Your task to perform on an android device: Open Youtube and go to the subscriptions tab Image 0: 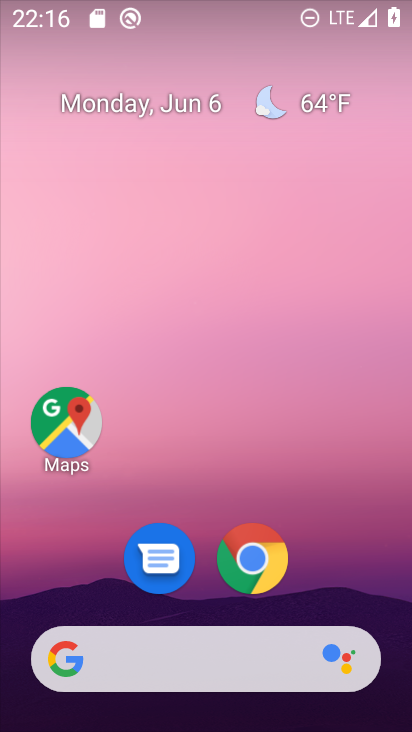
Step 0: drag from (202, 706) to (206, 119)
Your task to perform on an android device: Open Youtube and go to the subscriptions tab Image 1: 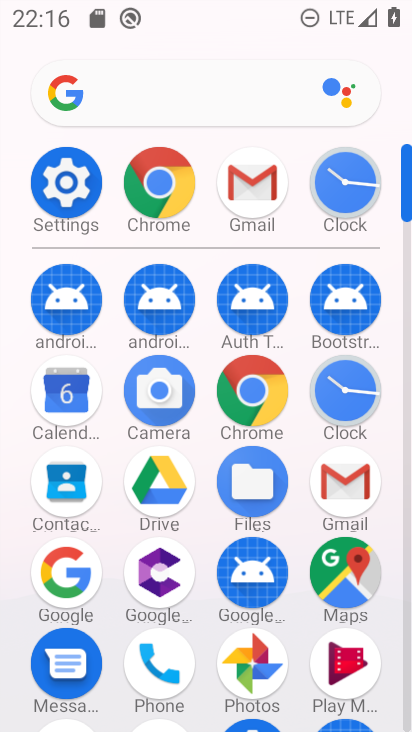
Step 1: drag from (201, 646) to (204, 244)
Your task to perform on an android device: Open Youtube and go to the subscriptions tab Image 2: 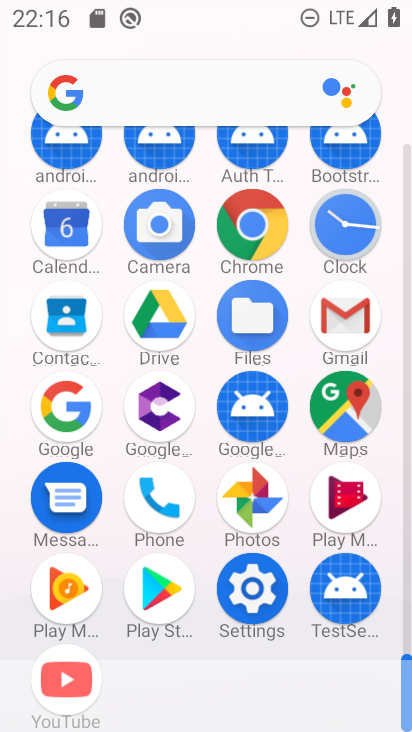
Step 2: click (68, 663)
Your task to perform on an android device: Open Youtube and go to the subscriptions tab Image 3: 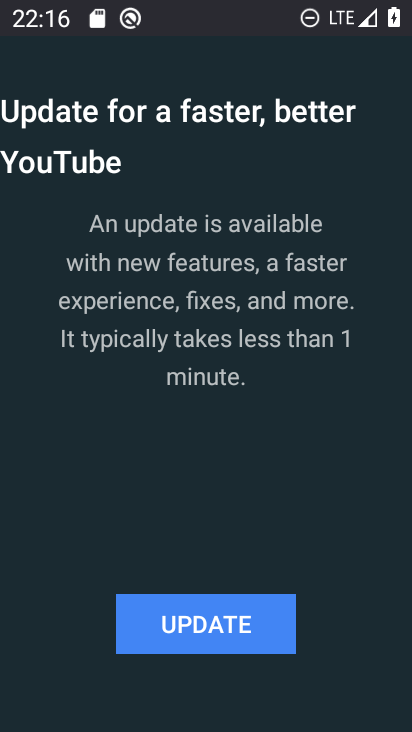
Step 3: click (194, 620)
Your task to perform on an android device: Open Youtube and go to the subscriptions tab Image 4: 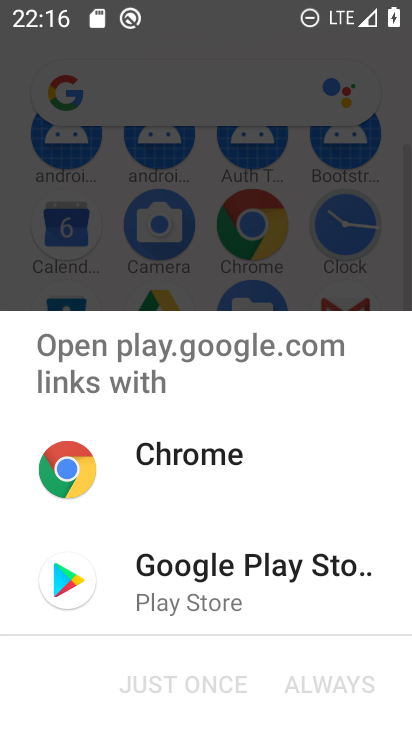
Step 4: click (186, 589)
Your task to perform on an android device: Open Youtube and go to the subscriptions tab Image 5: 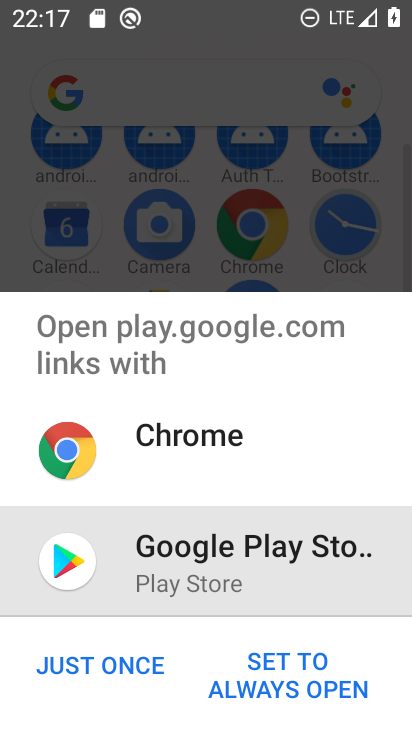
Step 5: click (88, 661)
Your task to perform on an android device: Open Youtube and go to the subscriptions tab Image 6: 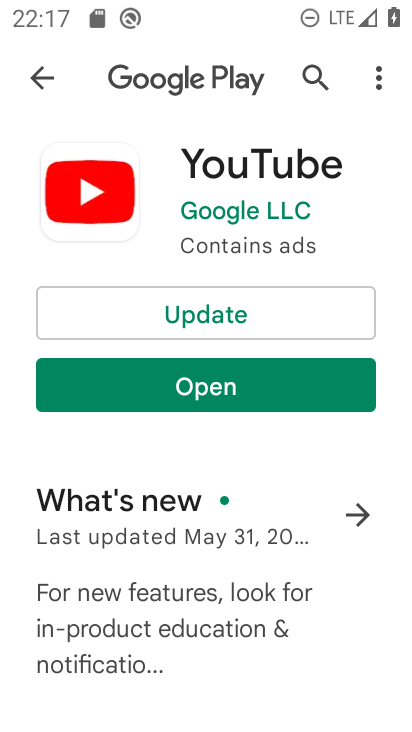
Step 6: click (222, 386)
Your task to perform on an android device: Open Youtube and go to the subscriptions tab Image 7: 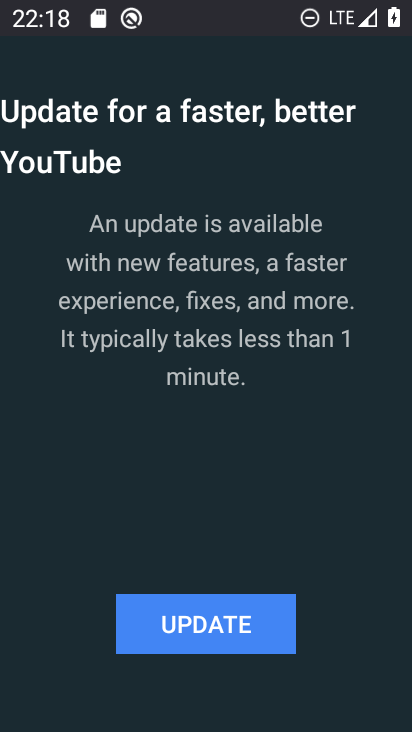
Step 7: task complete